Your task to perform on an android device: create a new album in the google photos Image 0: 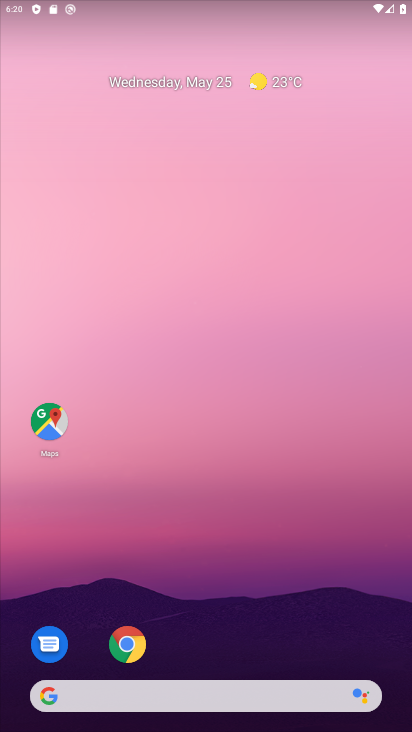
Step 0: drag from (286, 609) to (282, 6)
Your task to perform on an android device: create a new album in the google photos Image 1: 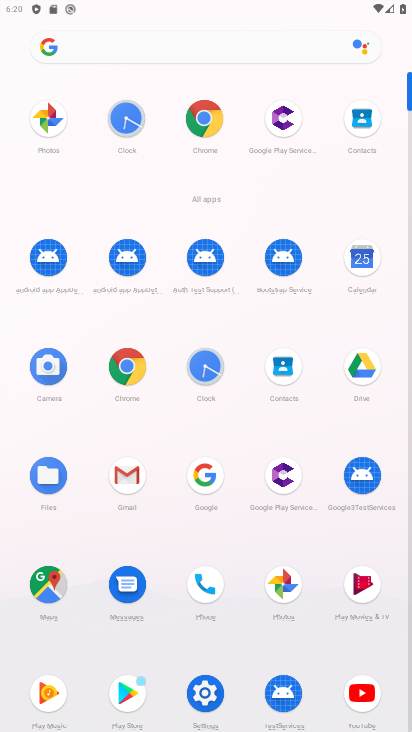
Step 1: click (288, 580)
Your task to perform on an android device: create a new album in the google photos Image 2: 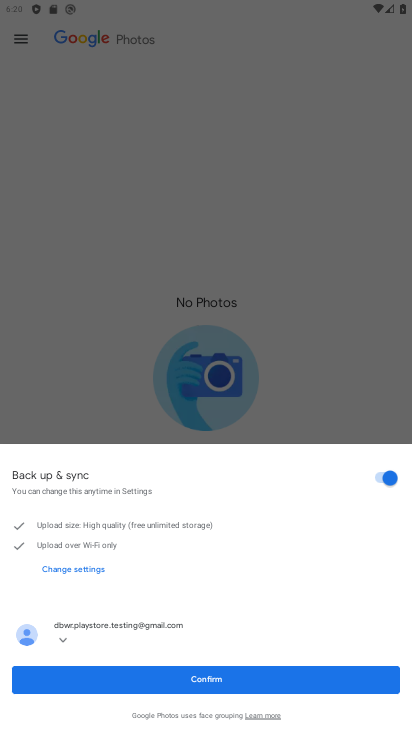
Step 2: click (194, 680)
Your task to perform on an android device: create a new album in the google photos Image 3: 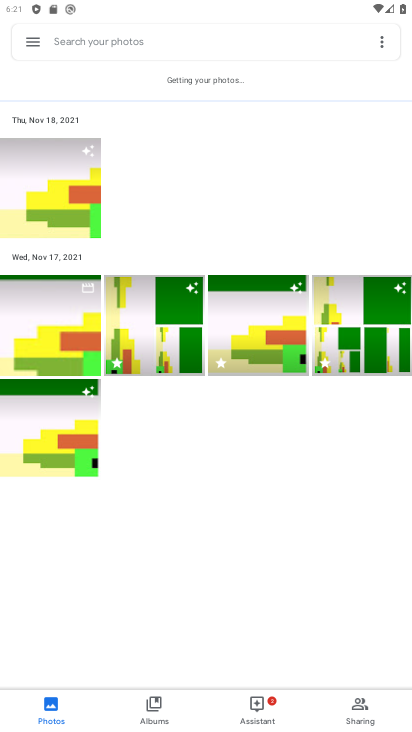
Step 3: click (69, 175)
Your task to perform on an android device: create a new album in the google photos Image 4: 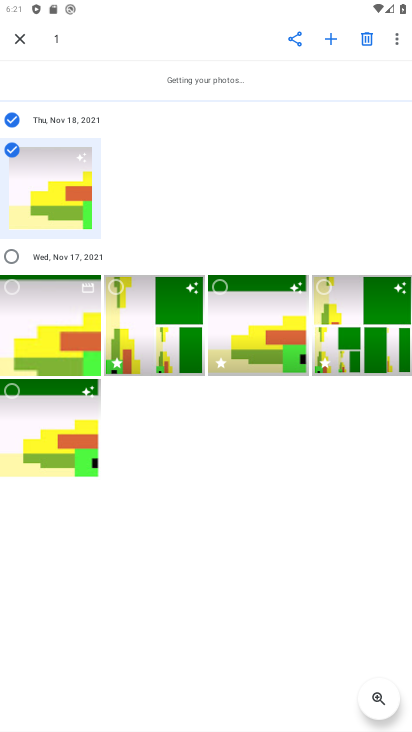
Step 4: click (339, 26)
Your task to perform on an android device: create a new album in the google photos Image 5: 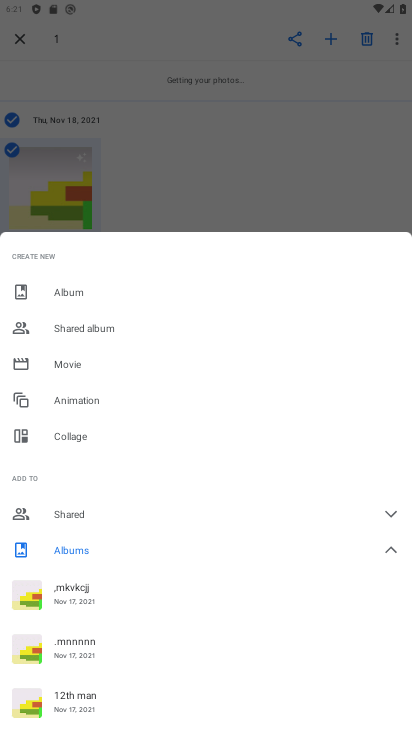
Step 5: click (102, 290)
Your task to perform on an android device: create a new album in the google photos Image 6: 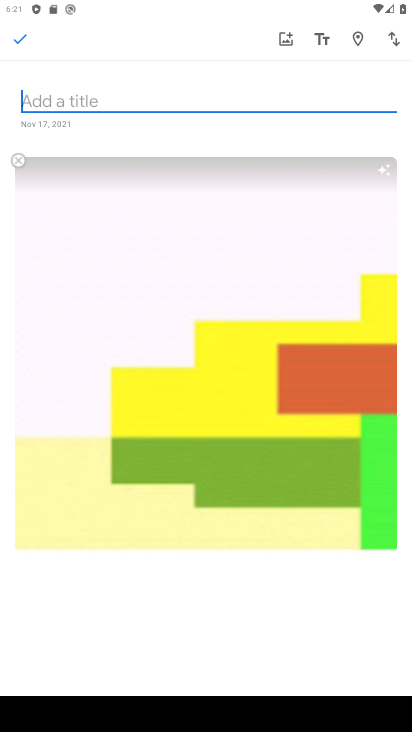
Step 6: type "salman"
Your task to perform on an android device: create a new album in the google photos Image 7: 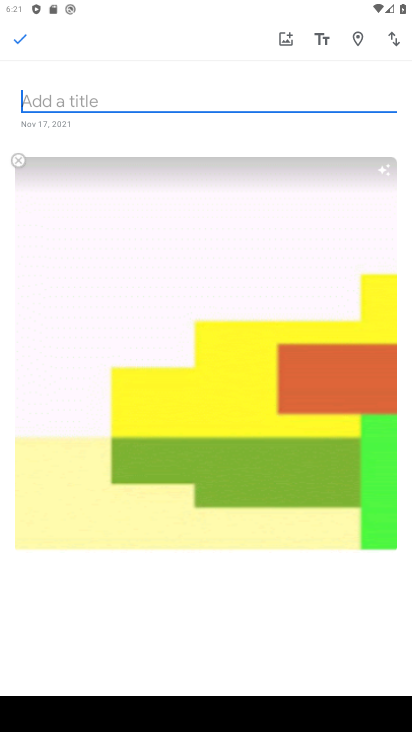
Step 7: click (18, 40)
Your task to perform on an android device: create a new album in the google photos Image 8: 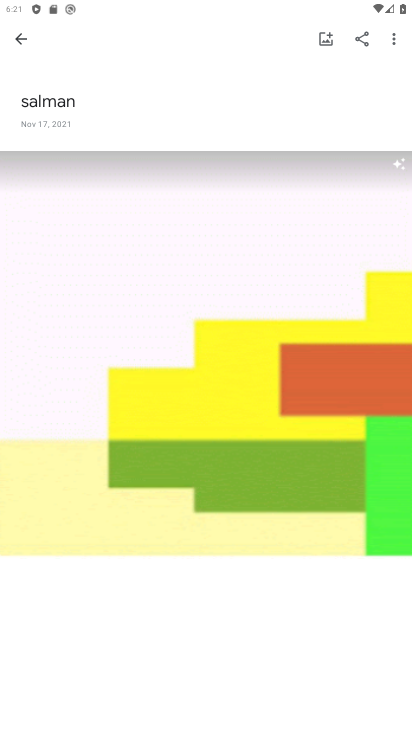
Step 8: task complete